Your task to perform on an android device: Open Android settings Image 0: 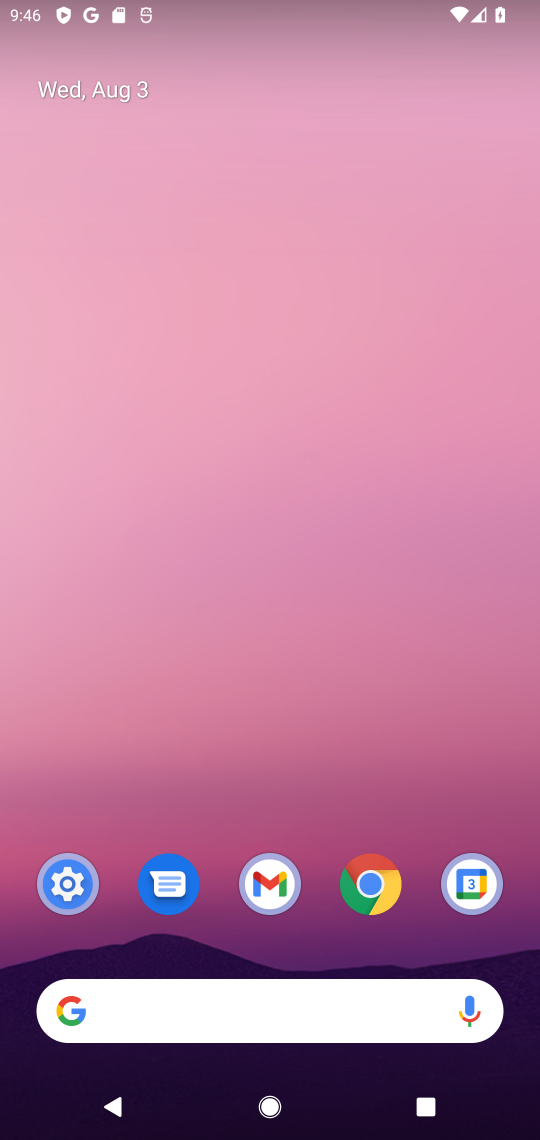
Step 0: drag from (312, 913) to (263, 378)
Your task to perform on an android device: Open Android settings Image 1: 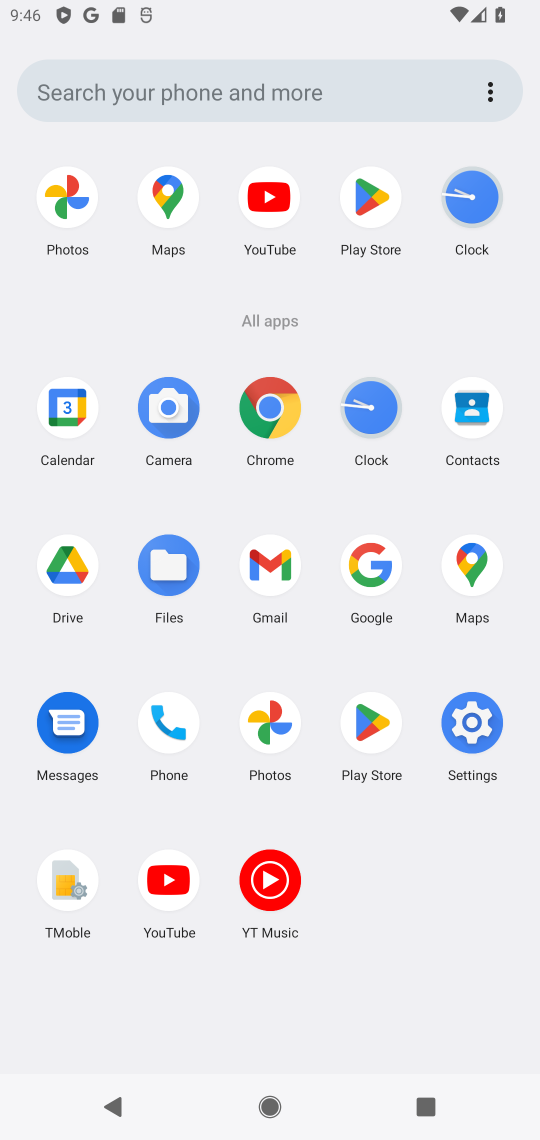
Step 1: click (463, 728)
Your task to perform on an android device: Open Android settings Image 2: 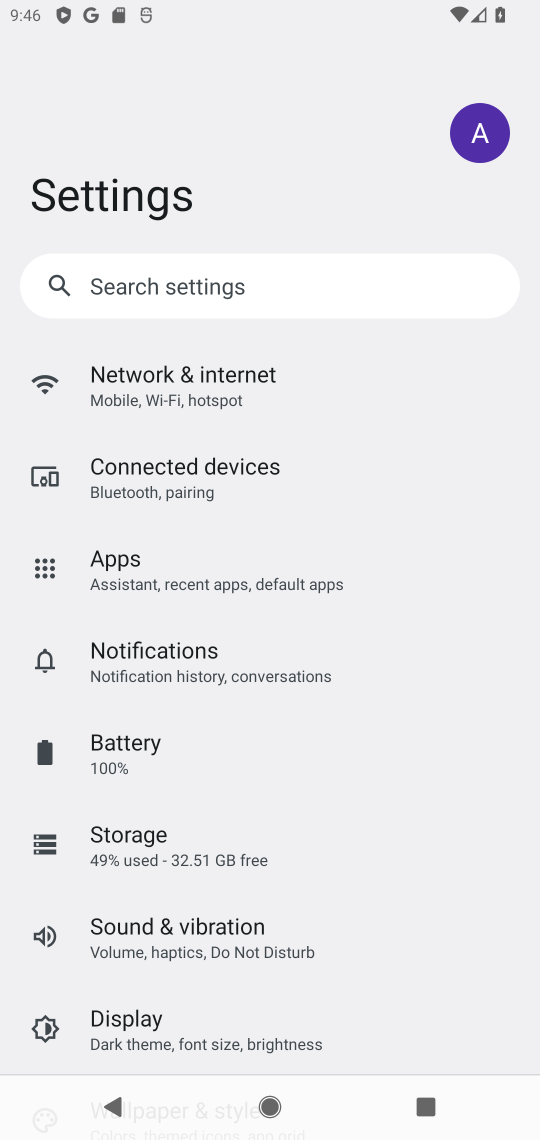
Step 2: task complete